Your task to perform on an android device: open a new tab in the chrome app Image 0: 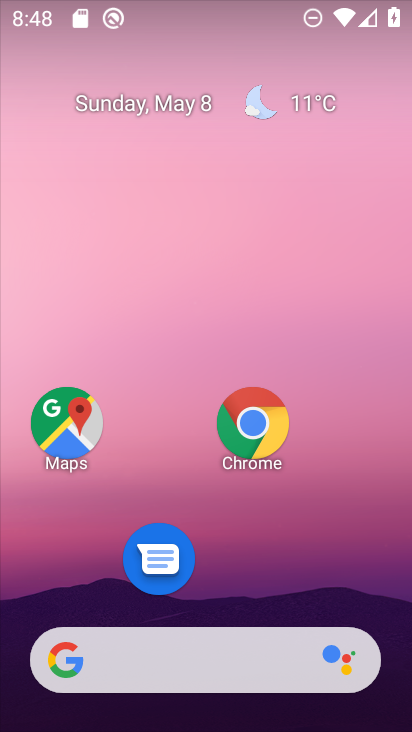
Step 0: click (252, 444)
Your task to perform on an android device: open a new tab in the chrome app Image 1: 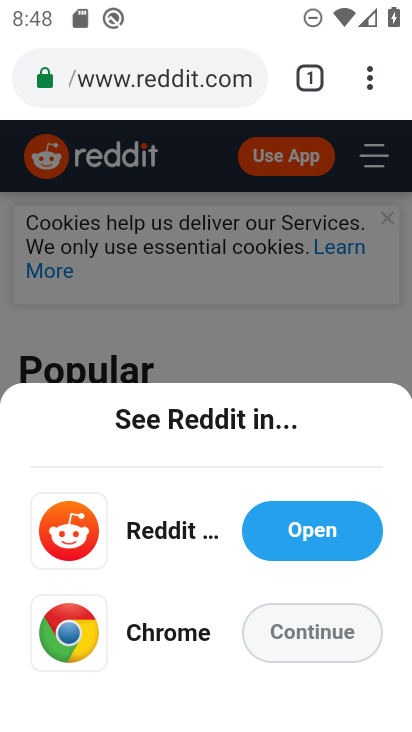
Step 1: task complete